Your task to perform on an android device: Is it going to rain tomorrow? Image 0: 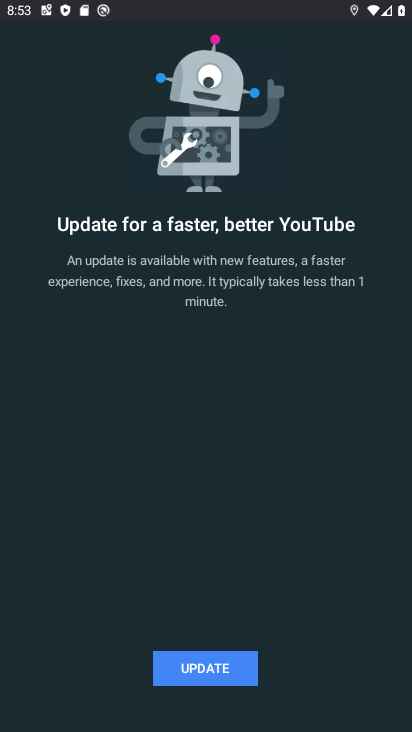
Step 0: press home button
Your task to perform on an android device: Is it going to rain tomorrow? Image 1: 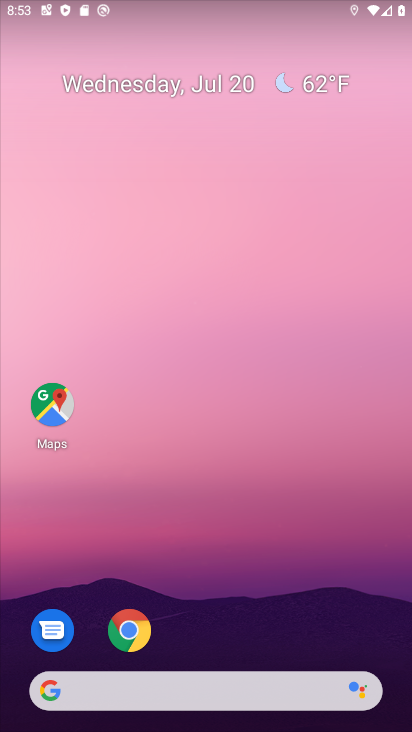
Step 1: click (299, 87)
Your task to perform on an android device: Is it going to rain tomorrow? Image 2: 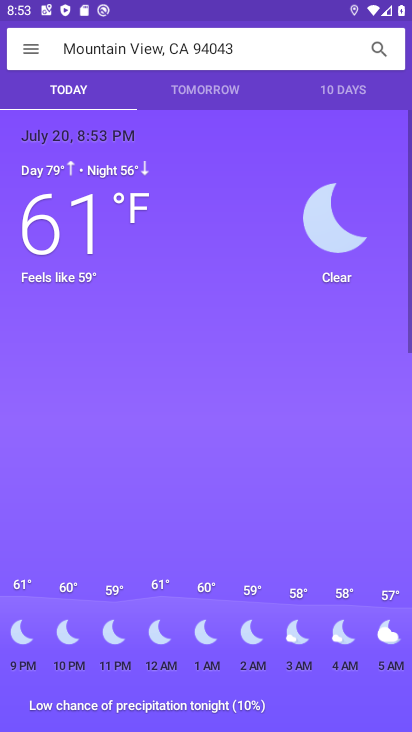
Step 2: click (209, 93)
Your task to perform on an android device: Is it going to rain tomorrow? Image 3: 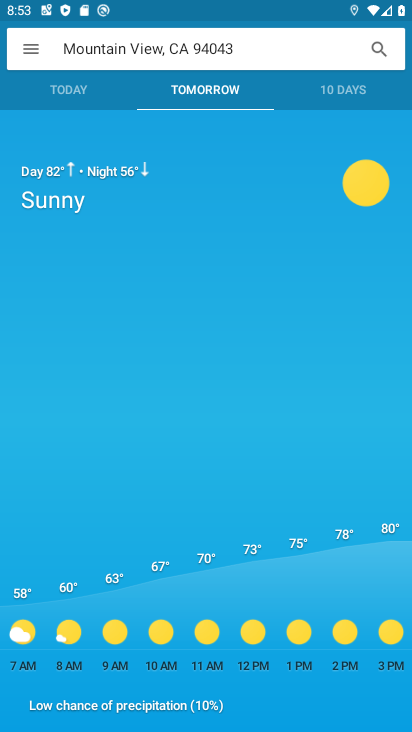
Step 3: task complete